Your task to perform on an android device: Open Maps and search for coffee Image 0: 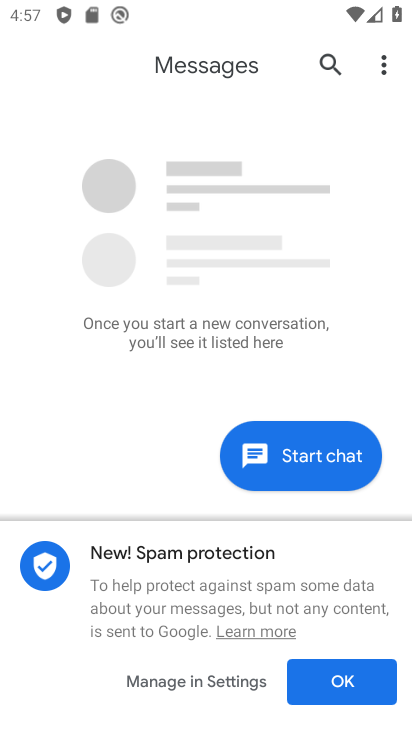
Step 0: press home button
Your task to perform on an android device: Open Maps and search for coffee Image 1: 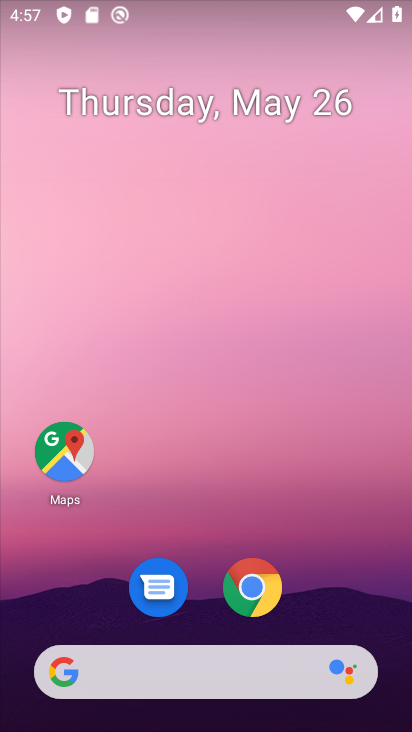
Step 1: click (61, 454)
Your task to perform on an android device: Open Maps and search for coffee Image 2: 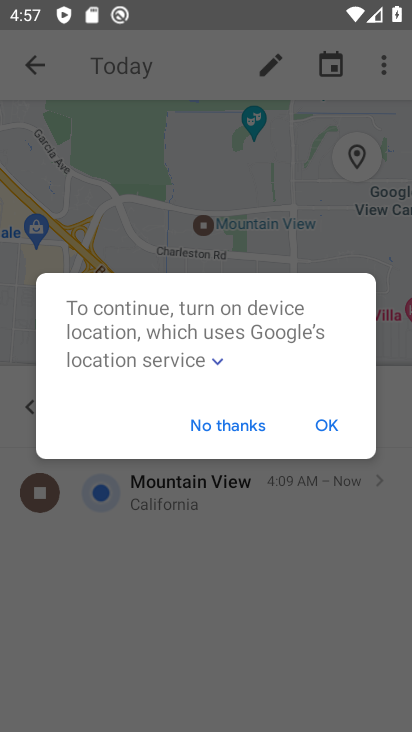
Step 2: press back button
Your task to perform on an android device: Open Maps and search for coffee Image 3: 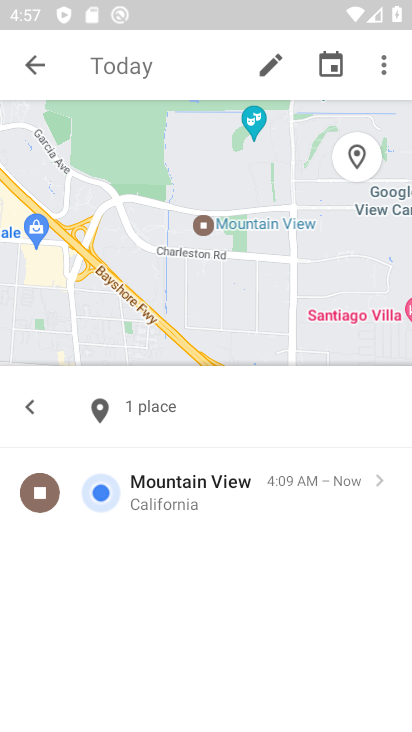
Step 3: press back button
Your task to perform on an android device: Open Maps and search for coffee Image 4: 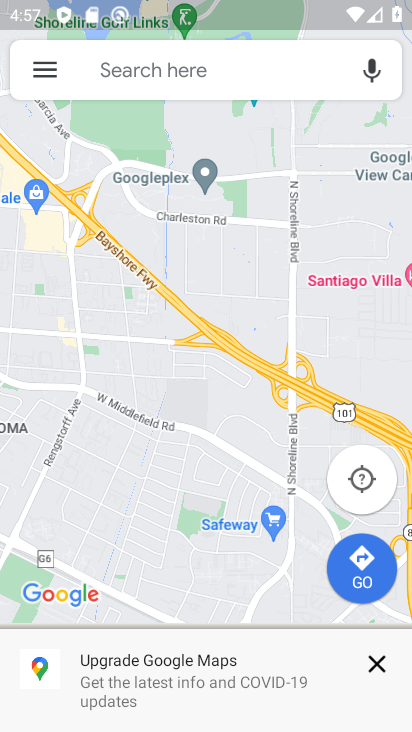
Step 4: click (171, 68)
Your task to perform on an android device: Open Maps and search for coffee Image 5: 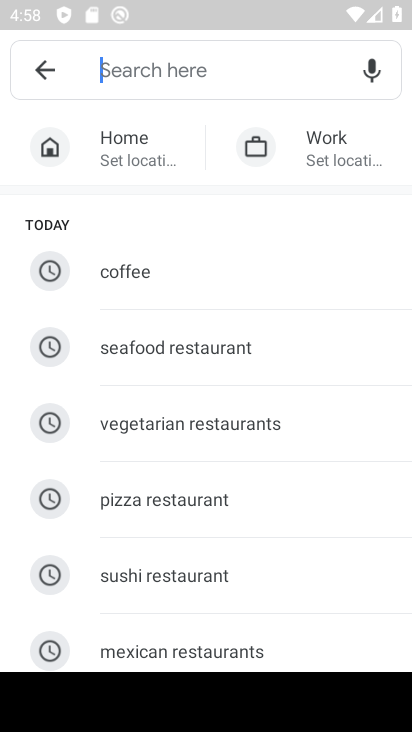
Step 5: type "coffee"
Your task to perform on an android device: Open Maps and search for coffee Image 6: 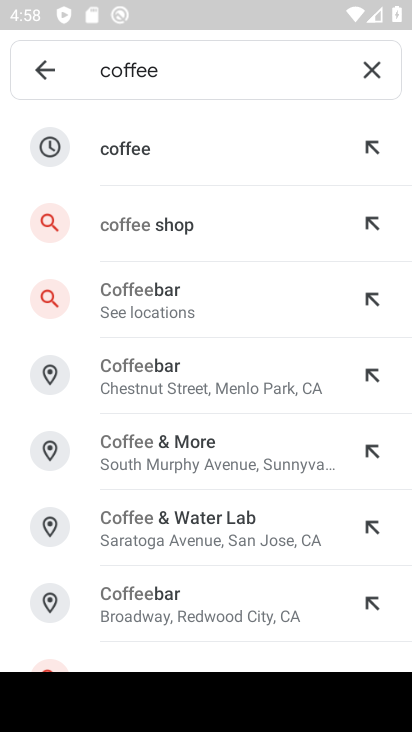
Step 6: click (136, 154)
Your task to perform on an android device: Open Maps and search for coffee Image 7: 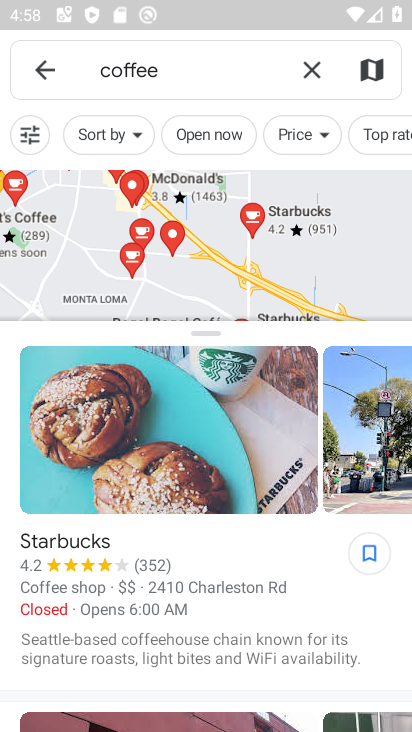
Step 7: task complete